Your task to perform on an android device: open device folders in google photos Image 0: 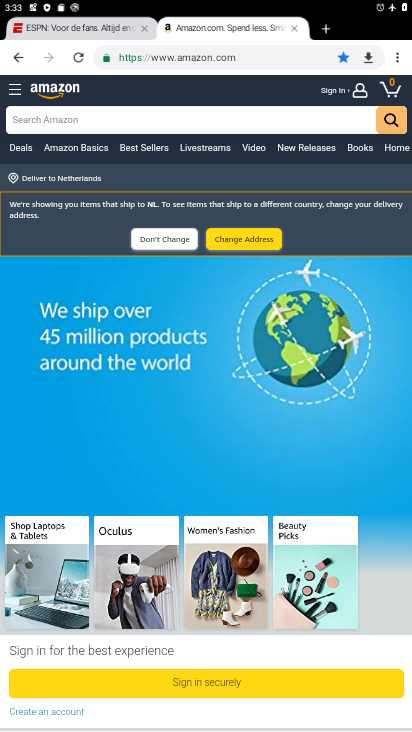
Step 0: press home button
Your task to perform on an android device: open device folders in google photos Image 1: 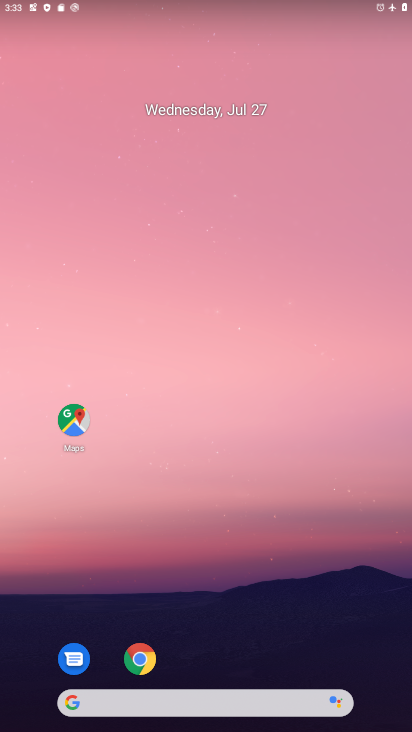
Step 1: drag from (242, 545) to (171, 8)
Your task to perform on an android device: open device folders in google photos Image 2: 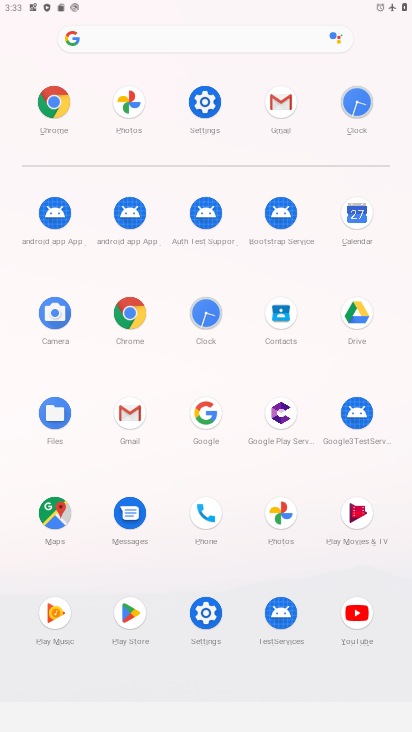
Step 2: click (133, 124)
Your task to perform on an android device: open device folders in google photos Image 3: 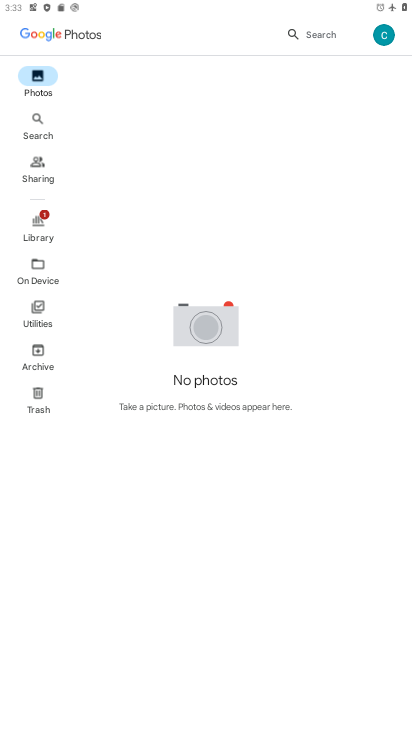
Step 3: click (382, 29)
Your task to perform on an android device: open device folders in google photos Image 4: 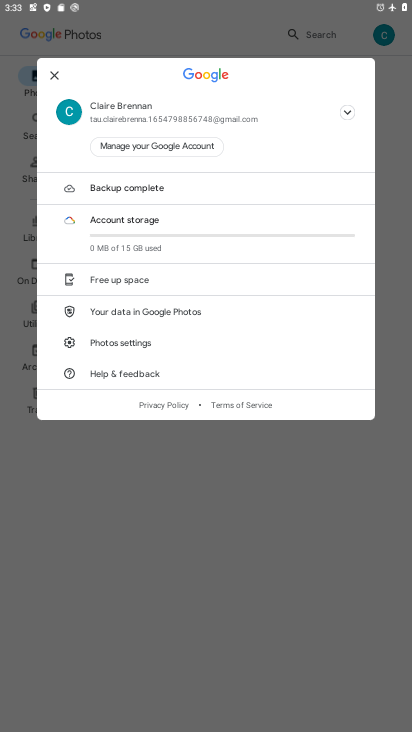
Step 4: click (235, 511)
Your task to perform on an android device: open device folders in google photos Image 5: 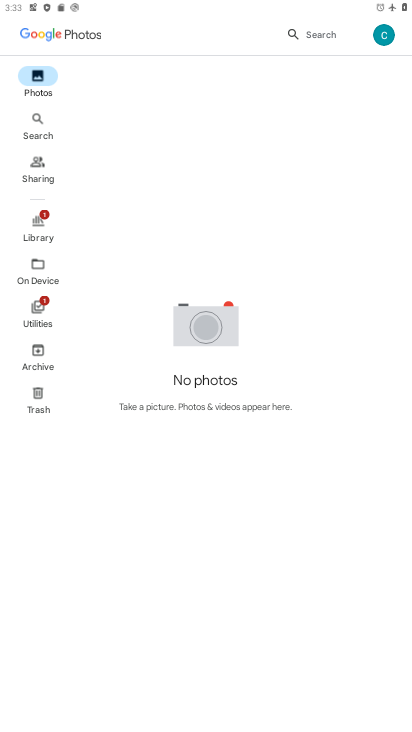
Step 5: click (33, 283)
Your task to perform on an android device: open device folders in google photos Image 6: 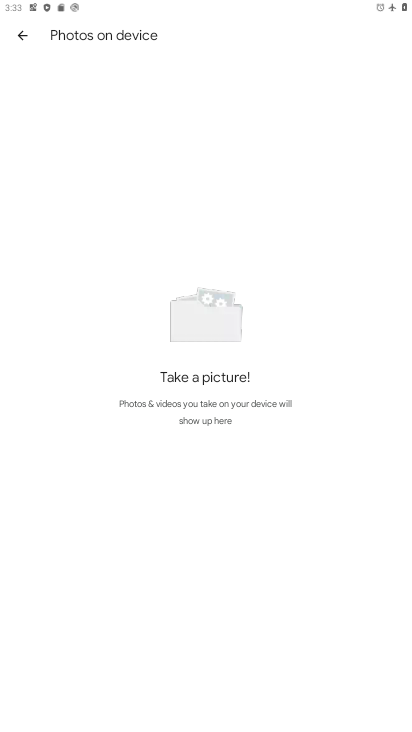
Step 6: task complete